Your task to perform on an android device: stop showing notifications on the lock screen Image 0: 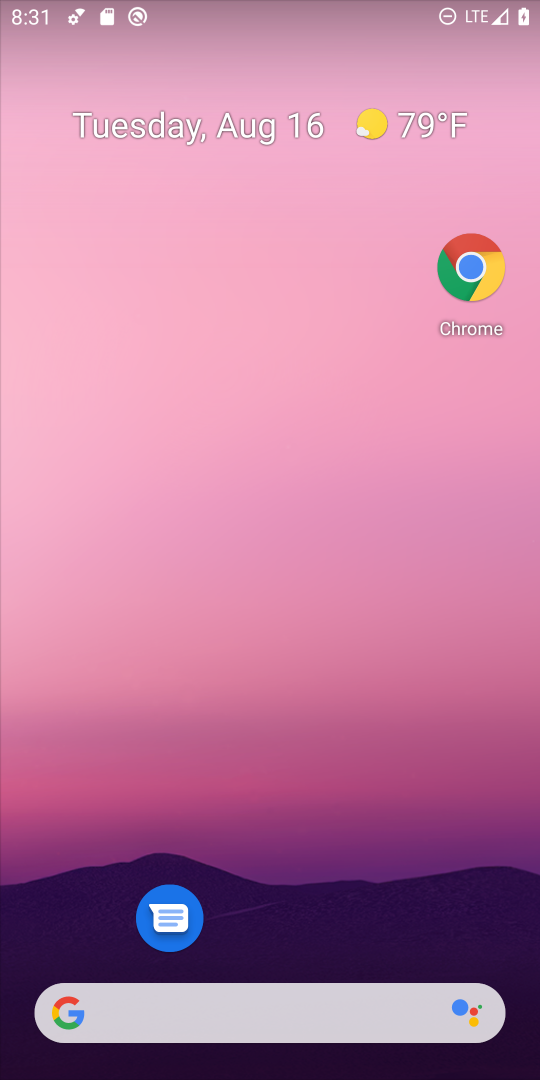
Step 0: drag from (283, 921) to (211, 255)
Your task to perform on an android device: stop showing notifications on the lock screen Image 1: 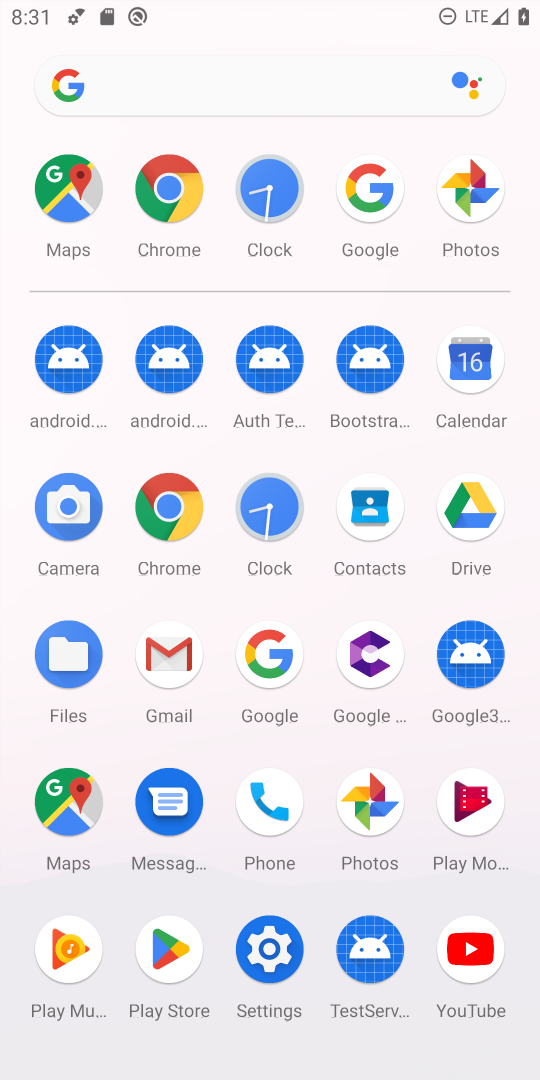
Step 1: click (259, 992)
Your task to perform on an android device: stop showing notifications on the lock screen Image 2: 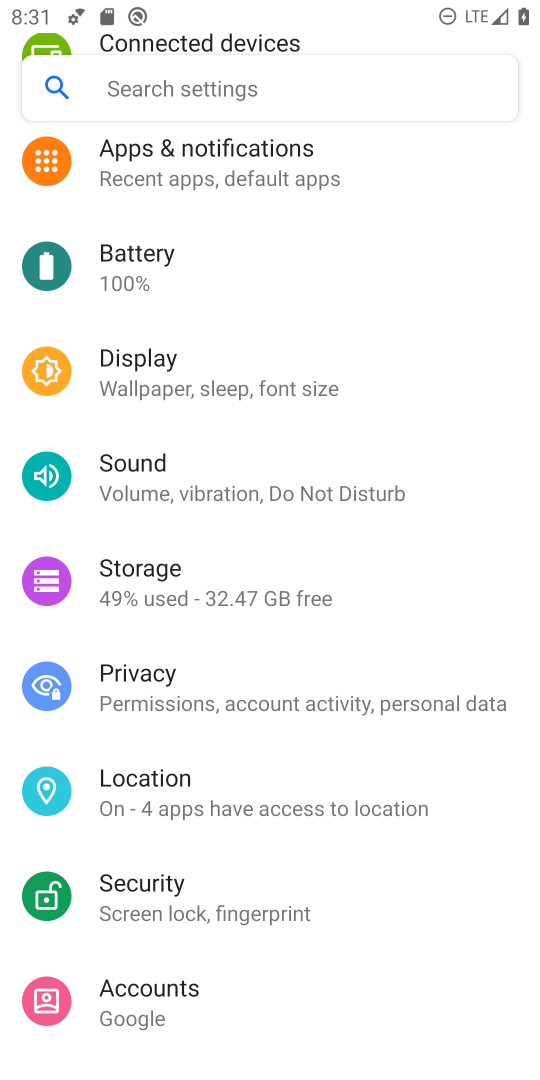
Step 2: click (212, 157)
Your task to perform on an android device: stop showing notifications on the lock screen Image 3: 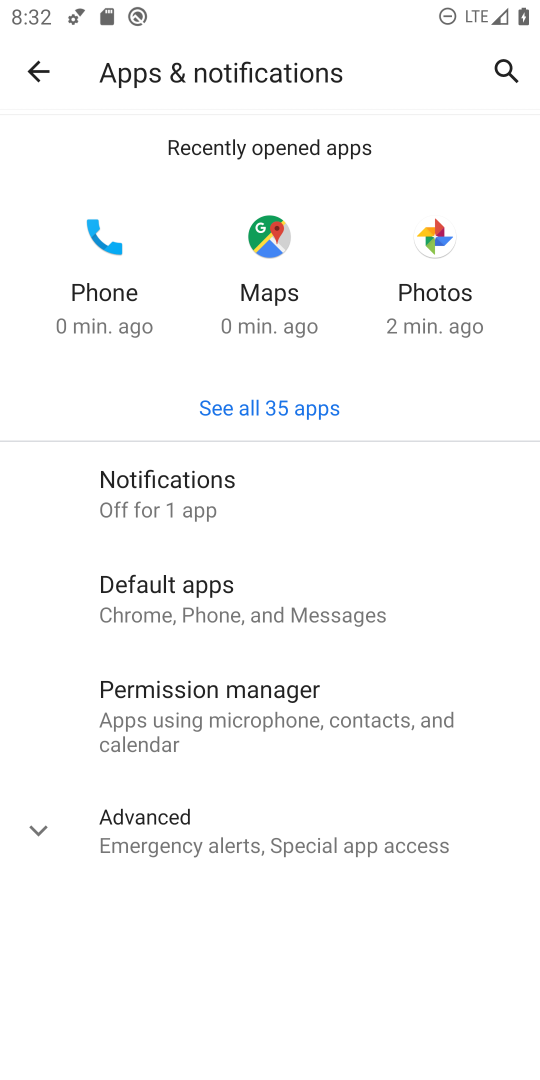
Step 3: click (208, 488)
Your task to perform on an android device: stop showing notifications on the lock screen Image 4: 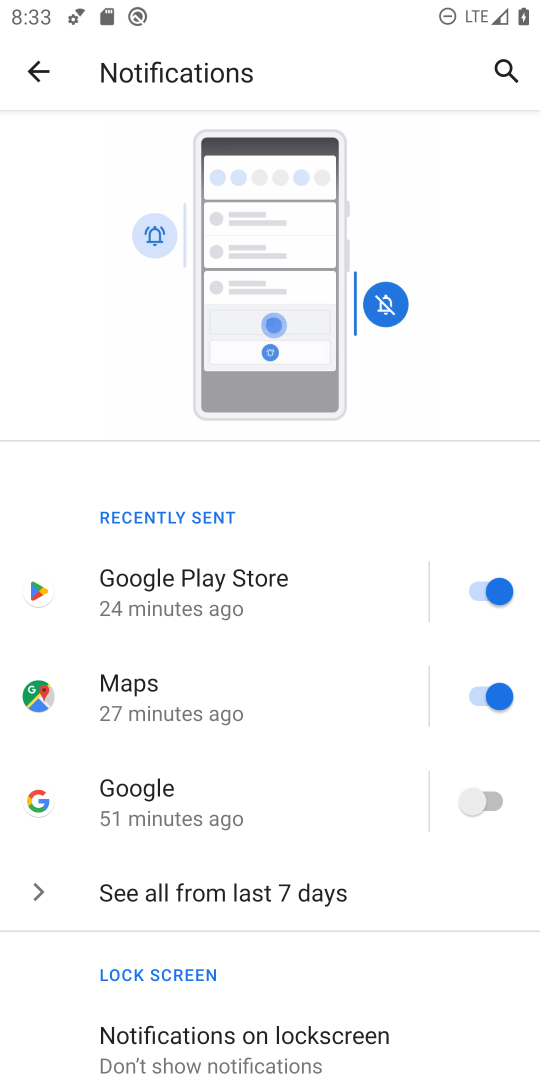
Step 4: click (287, 1047)
Your task to perform on an android device: stop showing notifications on the lock screen Image 5: 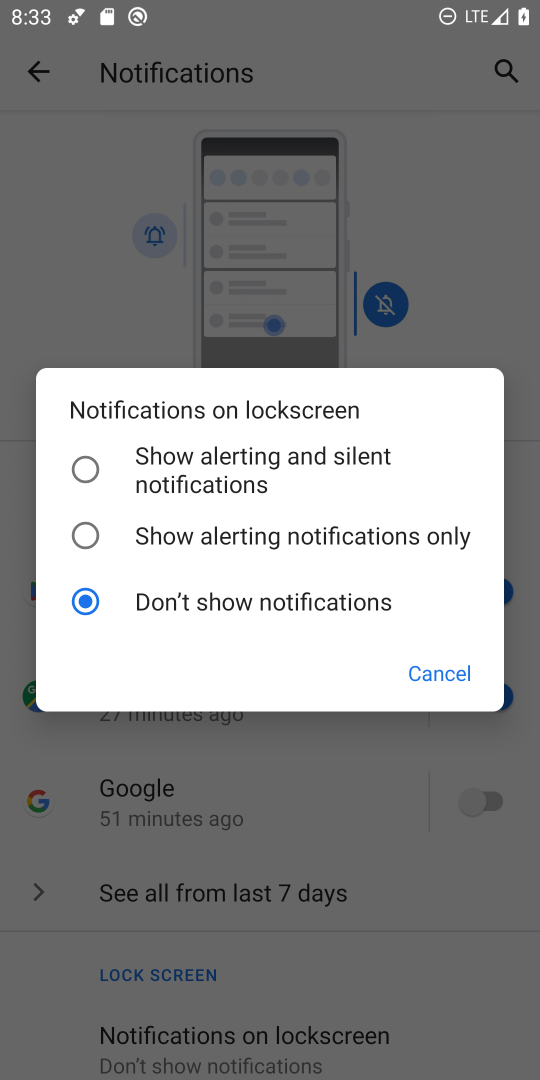
Step 5: task complete